Your task to perform on an android device: turn on notifications settings in the gmail app Image 0: 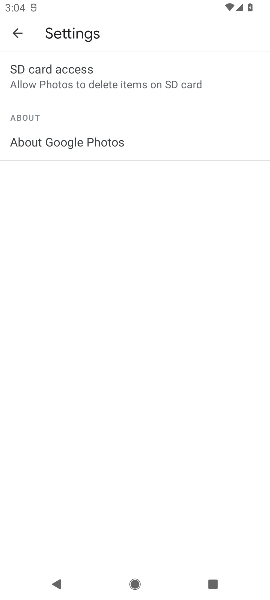
Step 0: press home button
Your task to perform on an android device: turn on notifications settings in the gmail app Image 1: 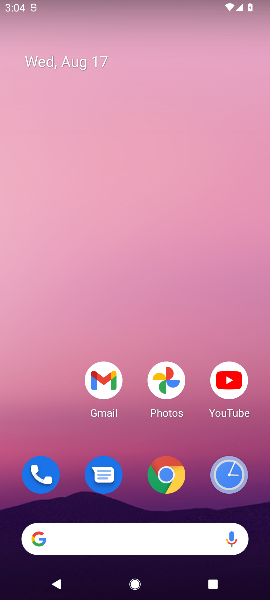
Step 1: drag from (147, 513) to (146, 81)
Your task to perform on an android device: turn on notifications settings in the gmail app Image 2: 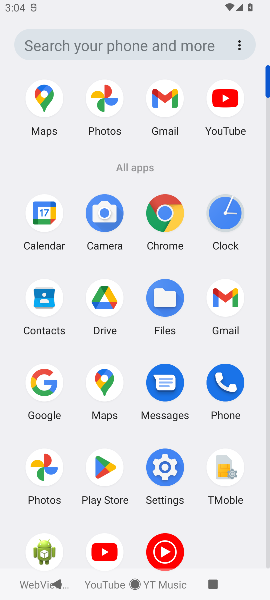
Step 2: click (227, 295)
Your task to perform on an android device: turn on notifications settings in the gmail app Image 3: 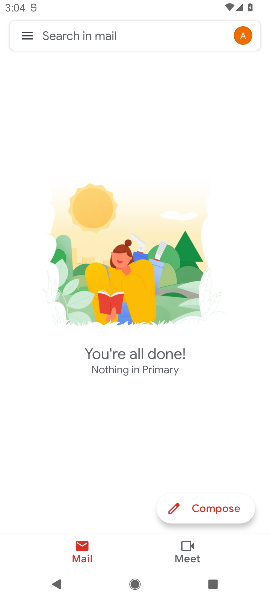
Step 3: click (28, 36)
Your task to perform on an android device: turn on notifications settings in the gmail app Image 4: 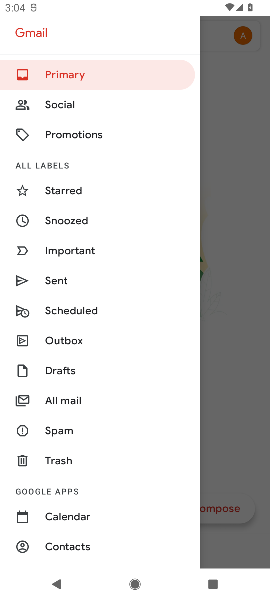
Step 4: drag from (72, 492) to (35, 61)
Your task to perform on an android device: turn on notifications settings in the gmail app Image 5: 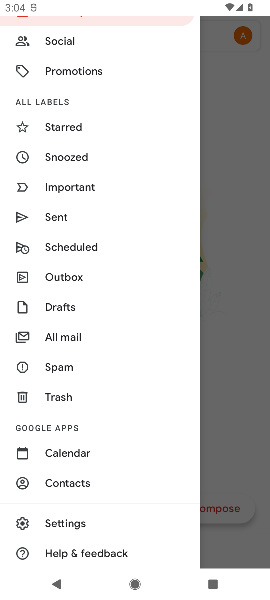
Step 5: click (25, 519)
Your task to perform on an android device: turn on notifications settings in the gmail app Image 6: 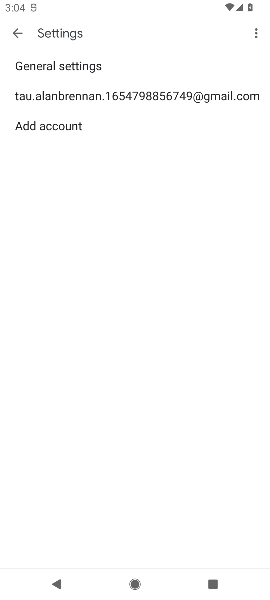
Step 6: click (42, 65)
Your task to perform on an android device: turn on notifications settings in the gmail app Image 7: 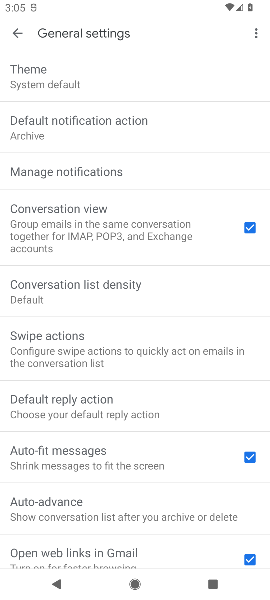
Step 7: click (66, 181)
Your task to perform on an android device: turn on notifications settings in the gmail app Image 8: 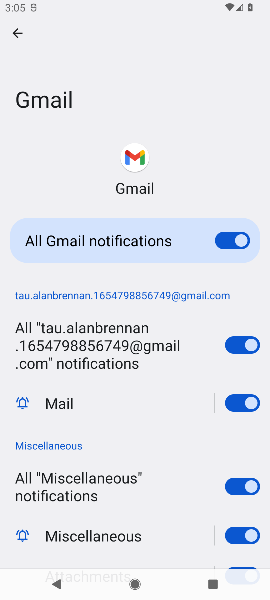
Step 8: task complete